Your task to perform on an android device: open app "Spotify: Music and Podcasts" (install if not already installed), go to login, and select forgot password Image 0: 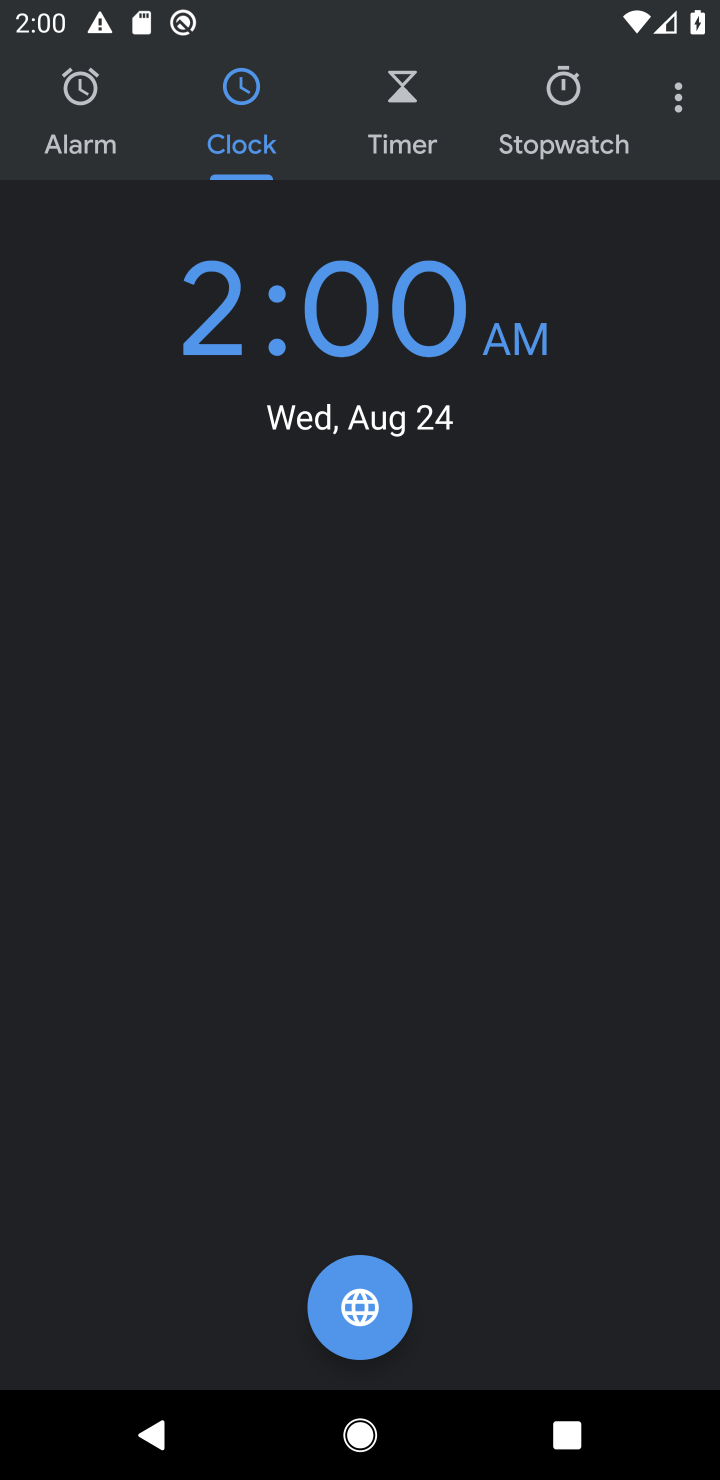
Step 0: press home button
Your task to perform on an android device: open app "Spotify: Music and Podcasts" (install if not already installed), go to login, and select forgot password Image 1: 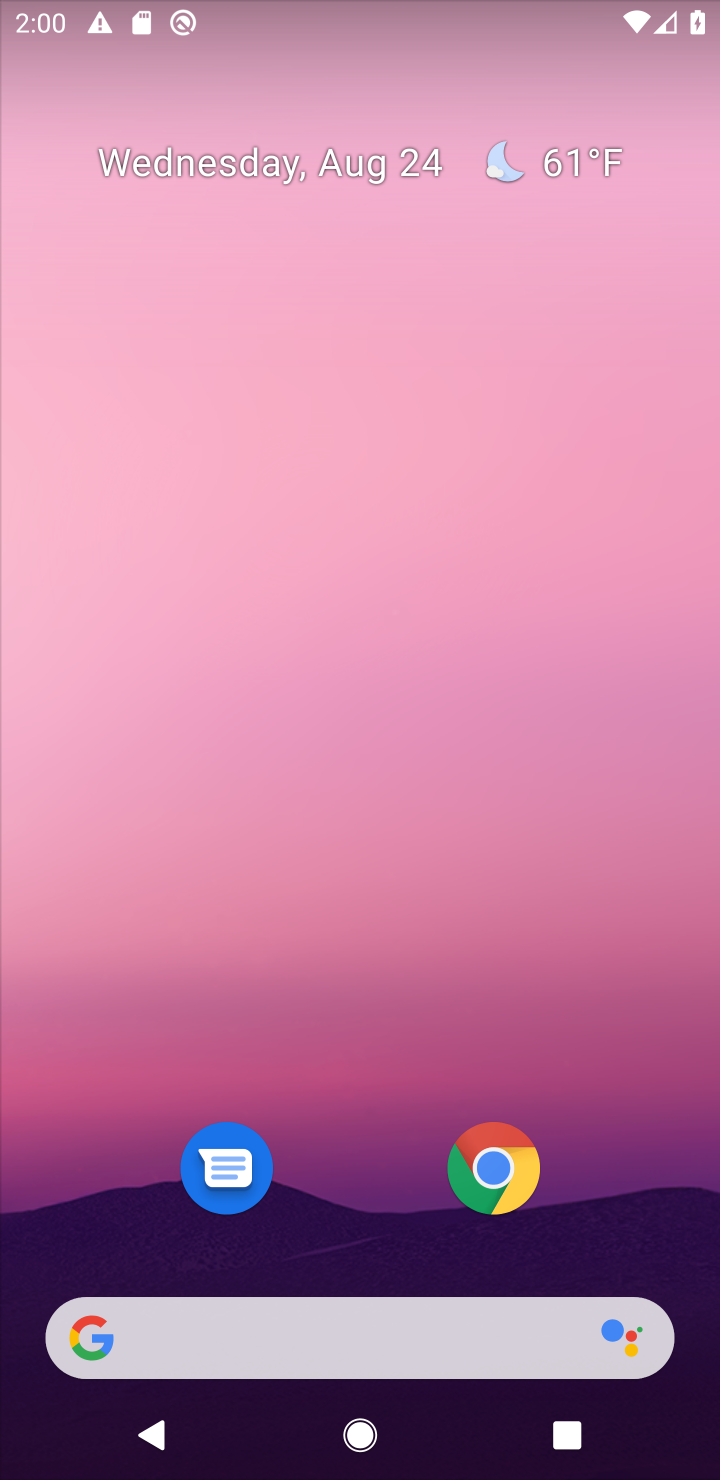
Step 1: drag from (652, 1101) to (624, 104)
Your task to perform on an android device: open app "Spotify: Music and Podcasts" (install if not already installed), go to login, and select forgot password Image 2: 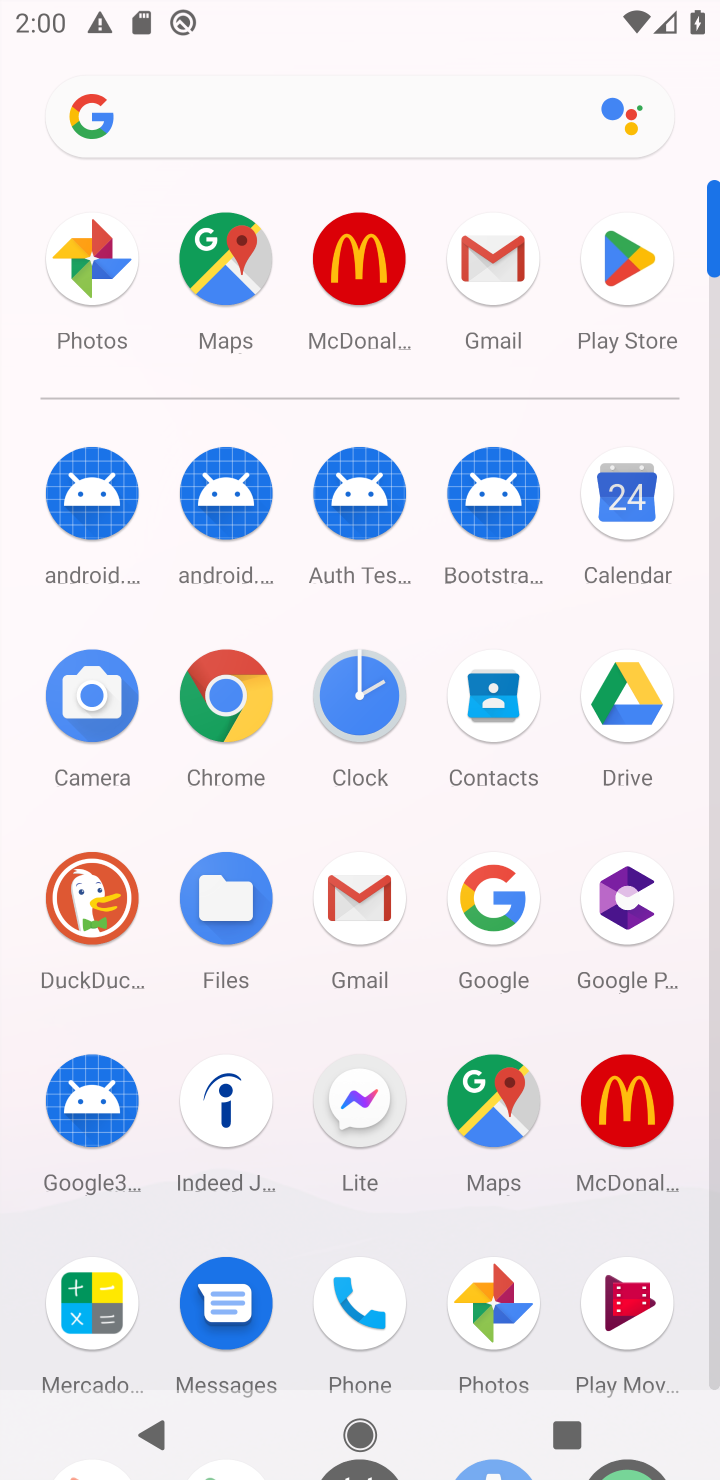
Step 2: click (713, 1263)
Your task to perform on an android device: open app "Spotify: Music and Podcasts" (install if not already installed), go to login, and select forgot password Image 3: 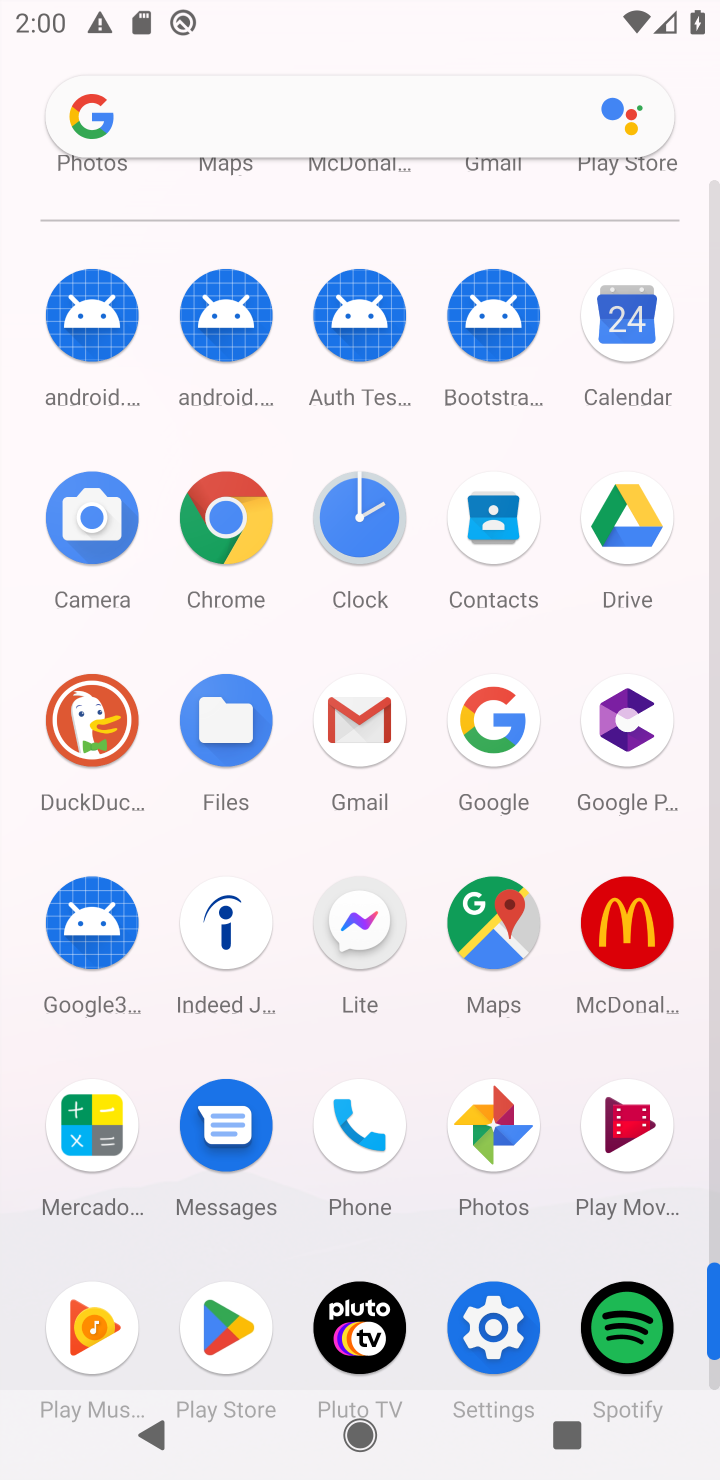
Step 3: click (625, 1326)
Your task to perform on an android device: open app "Spotify: Music and Podcasts" (install if not already installed), go to login, and select forgot password Image 4: 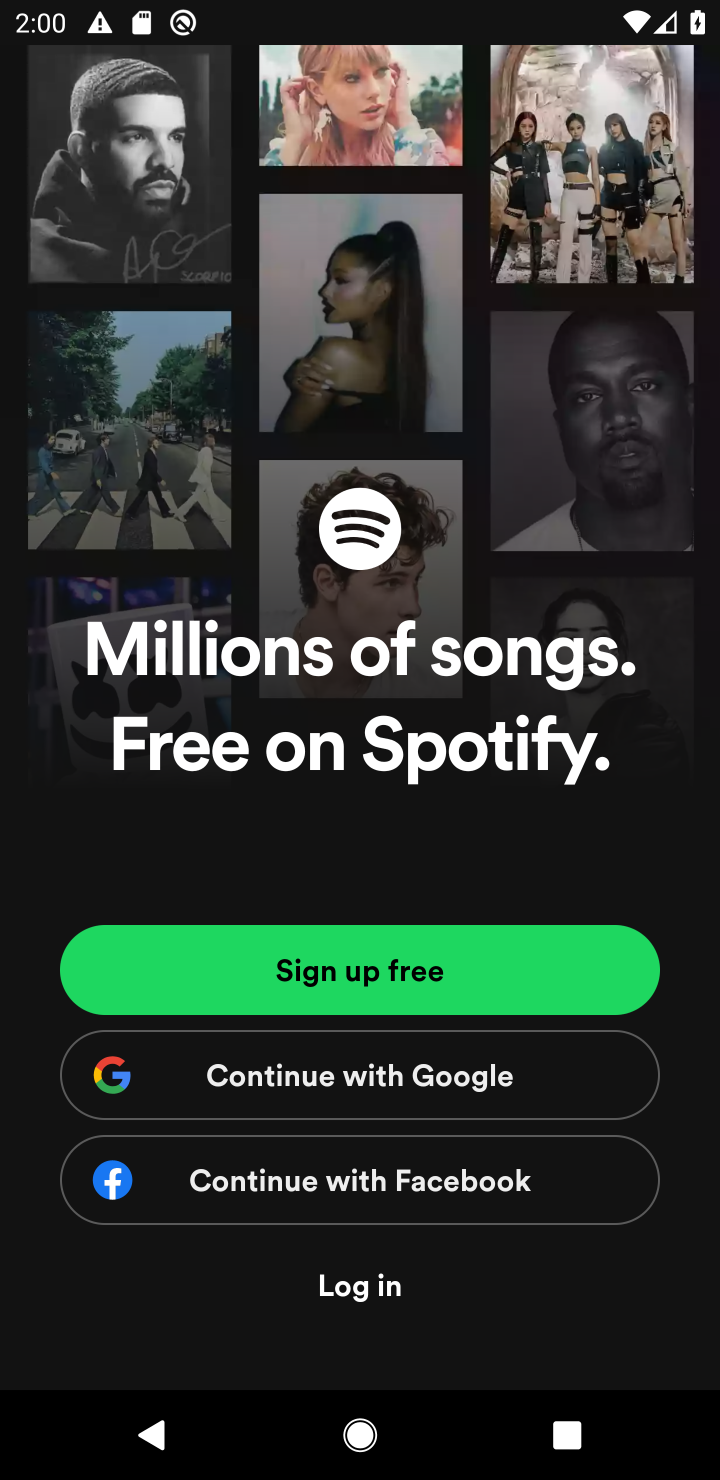
Step 4: click (352, 1278)
Your task to perform on an android device: open app "Spotify: Music and Podcasts" (install if not already installed), go to login, and select forgot password Image 5: 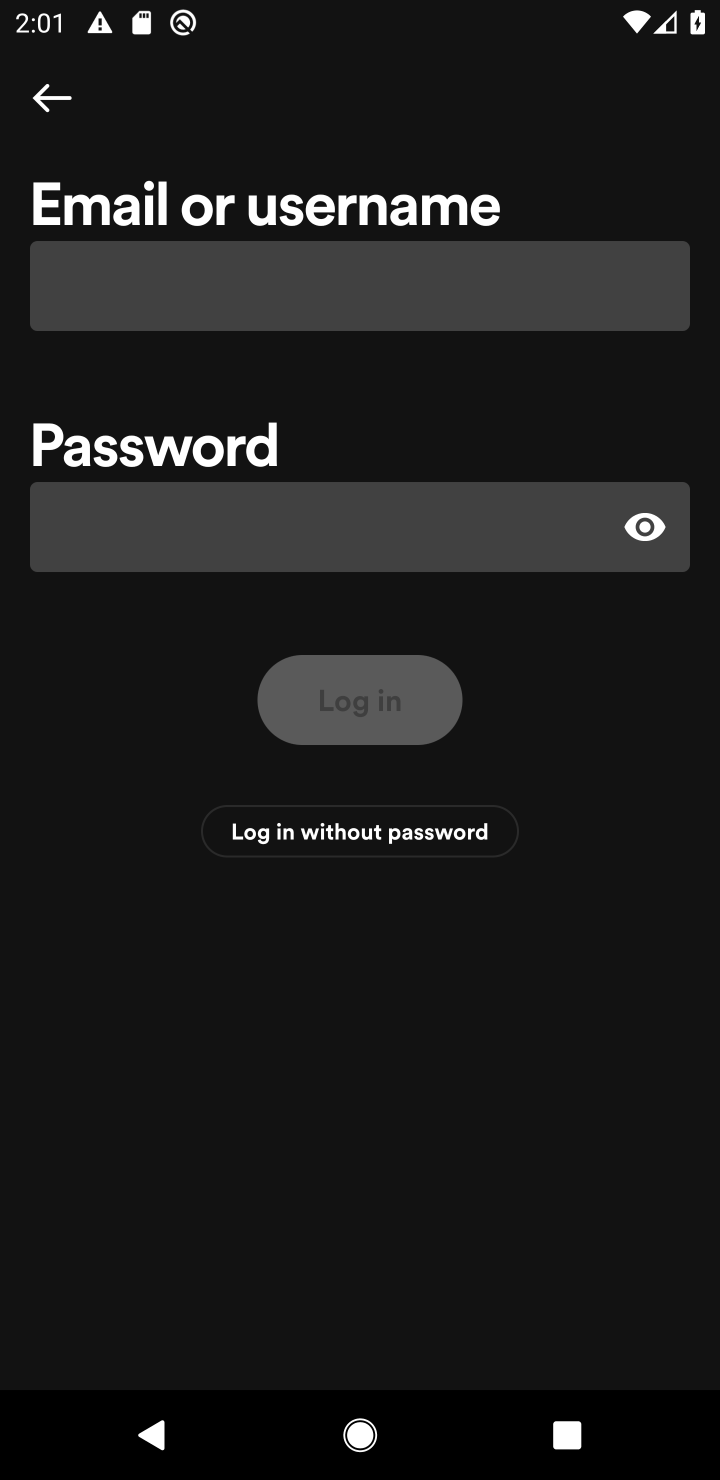
Step 5: click (368, 830)
Your task to perform on an android device: open app "Spotify: Music and Podcasts" (install if not already installed), go to login, and select forgot password Image 6: 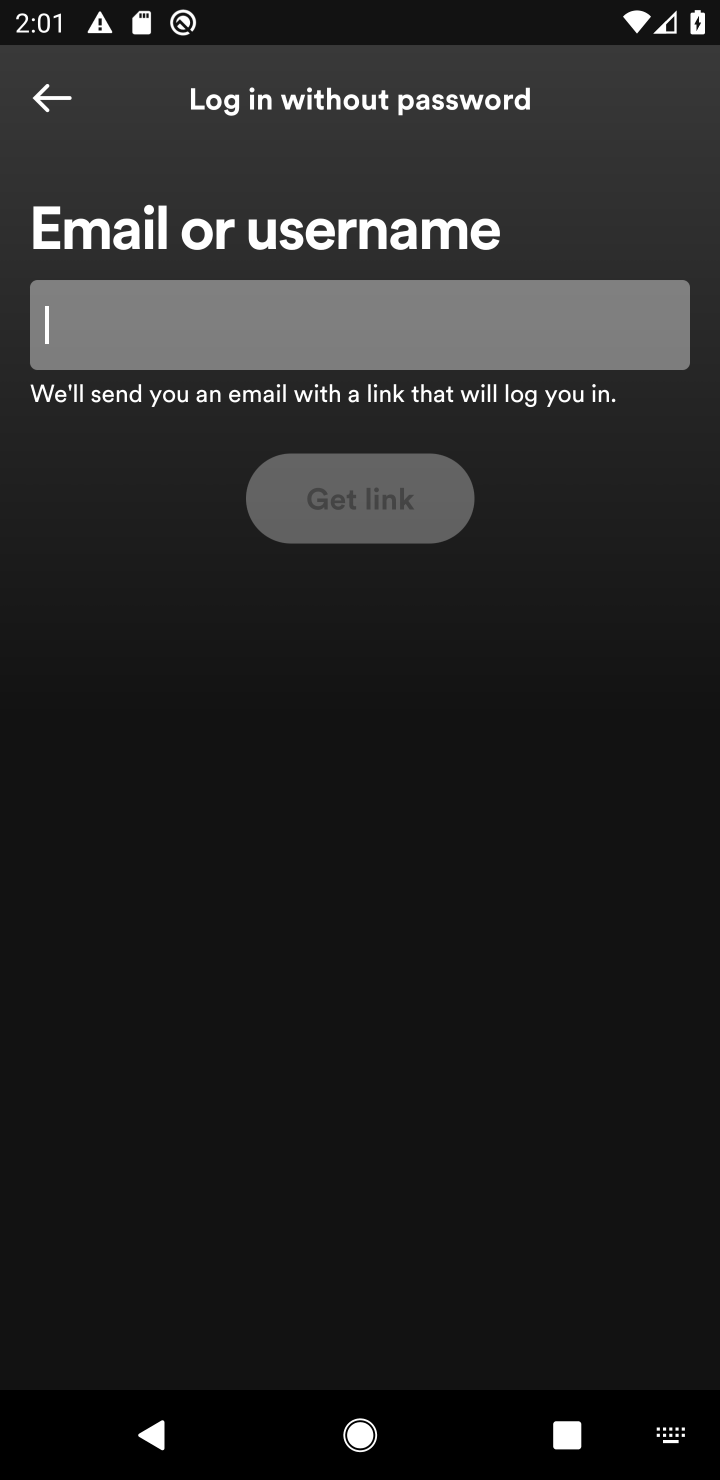
Step 6: task complete